Your task to perform on an android device: Go to Amazon Image 0: 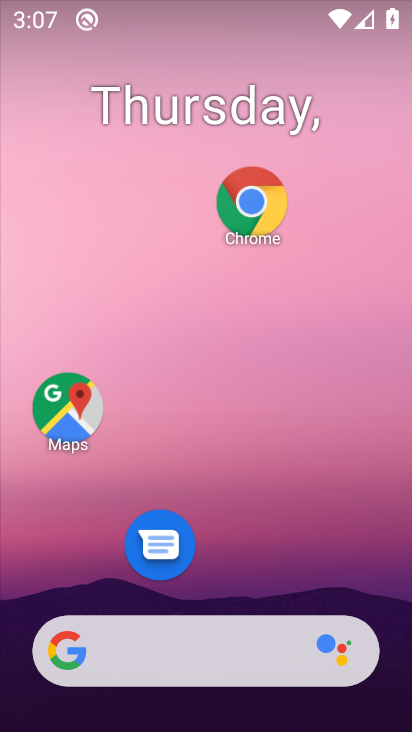
Step 0: drag from (151, 619) to (156, 308)
Your task to perform on an android device: Go to Amazon Image 1: 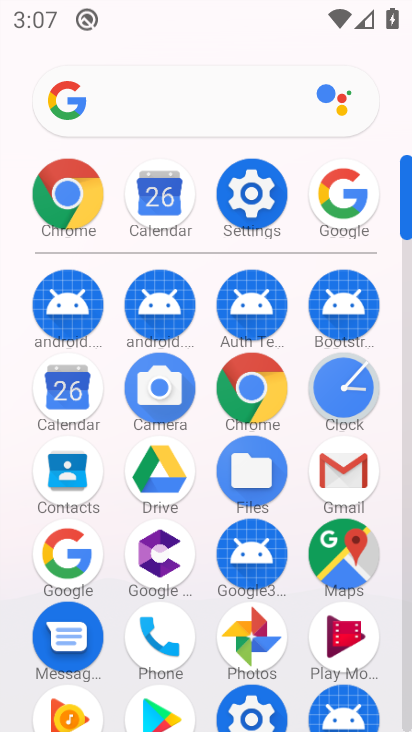
Step 1: click (75, 201)
Your task to perform on an android device: Go to Amazon Image 2: 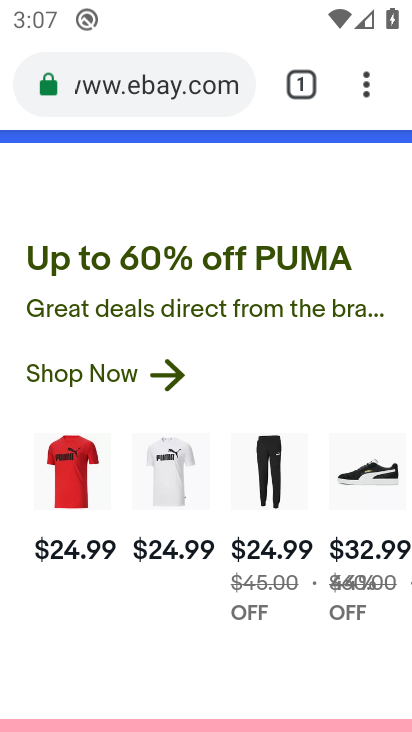
Step 2: click (306, 89)
Your task to perform on an android device: Go to Amazon Image 3: 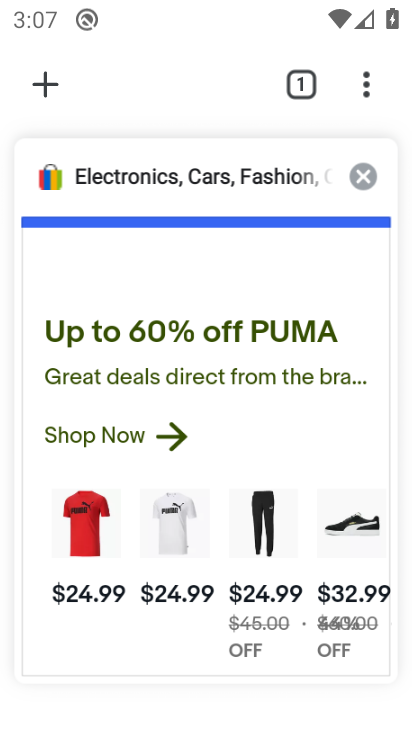
Step 3: click (358, 182)
Your task to perform on an android device: Go to Amazon Image 4: 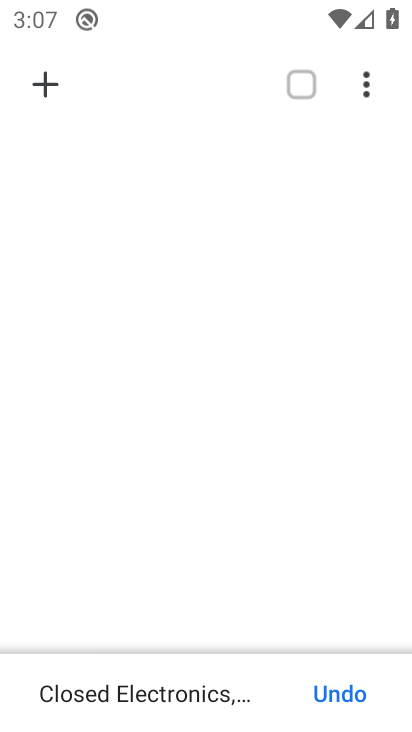
Step 4: click (36, 84)
Your task to perform on an android device: Go to Amazon Image 5: 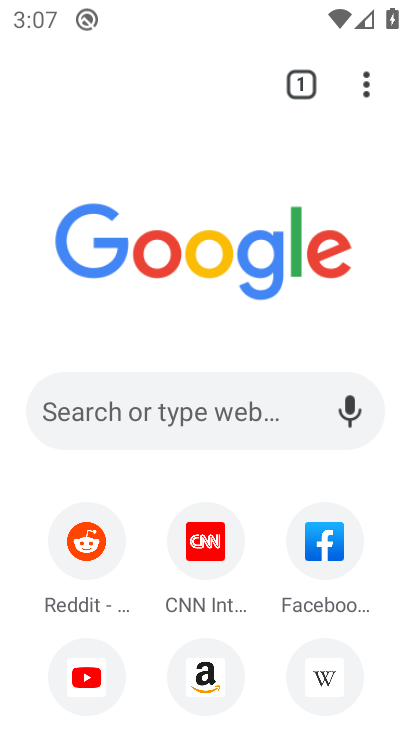
Step 5: click (200, 678)
Your task to perform on an android device: Go to Amazon Image 6: 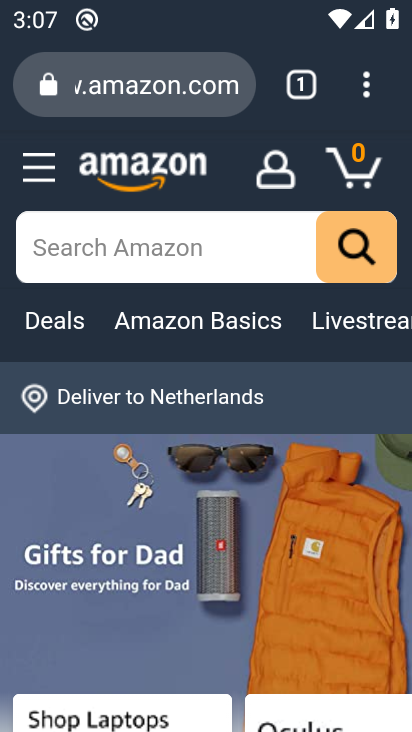
Step 6: task complete